Your task to perform on an android device: Open display settings Image 0: 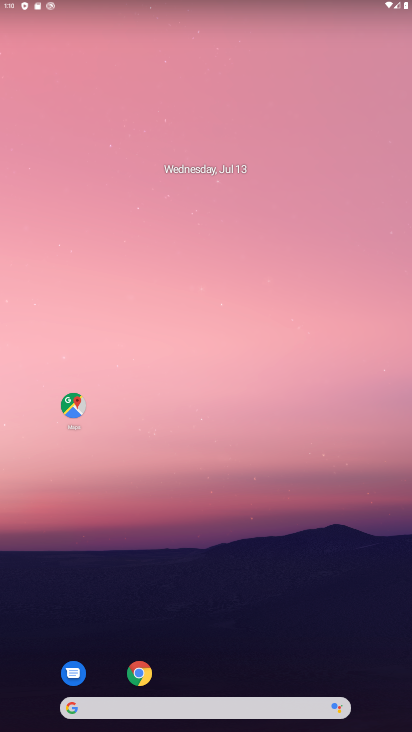
Step 0: drag from (228, 667) to (202, 212)
Your task to perform on an android device: Open display settings Image 1: 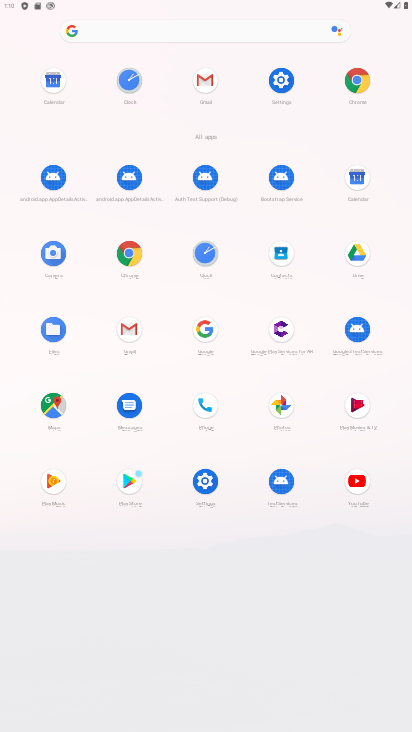
Step 1: click (283, 84)
Your task to perform on an android device: Open display settings Image 2: 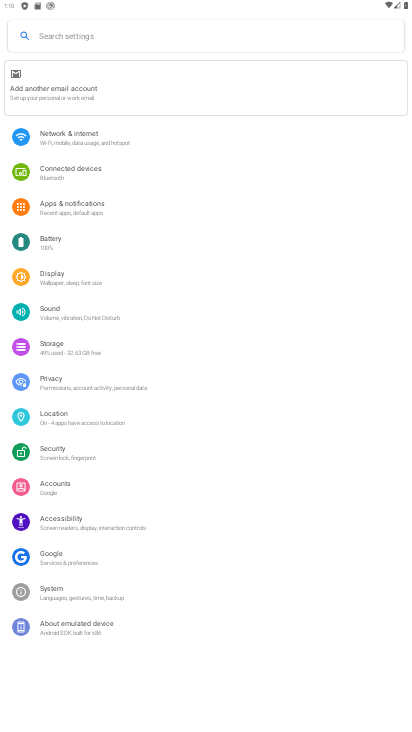
Step 2: click (46, 279)
Your task to perform on an android device: Open display settings Image 3: 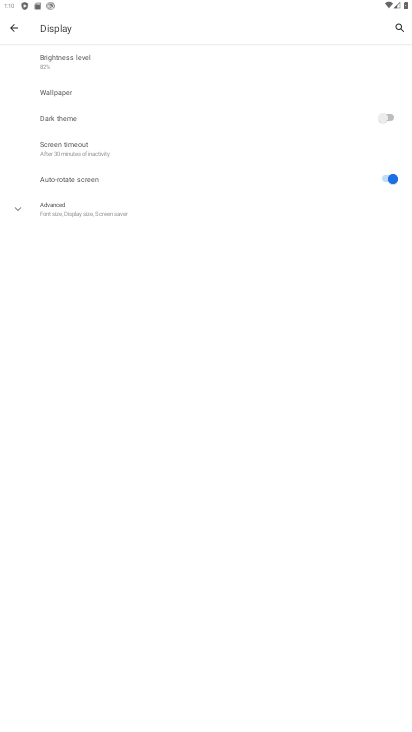
Step 3: task complete